Your task to perform on an android device: turn smart compose on in the gmail app Image 0: 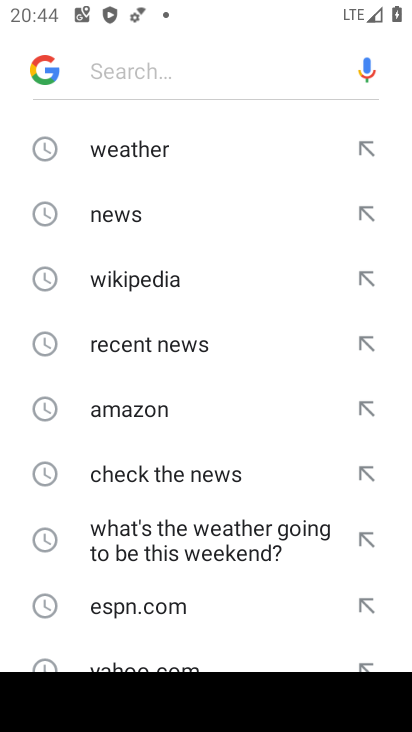
Step 0: press home button
Your task to perform on an android device: turn smart compose on in the gmail app Image 1: 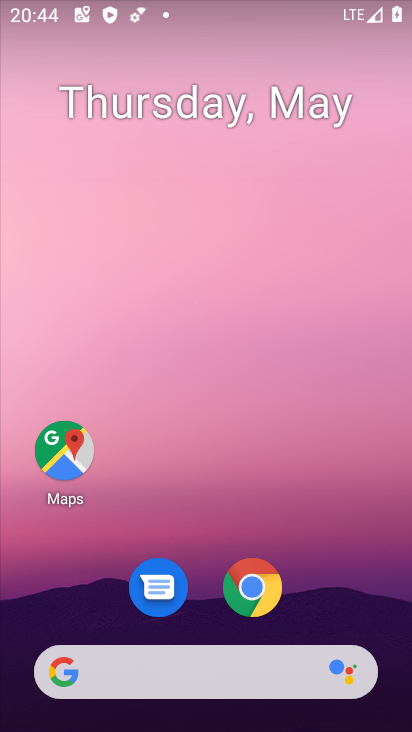
Step 1: drag from (105, 699) to (159, 57)
Your task to perform on an android device: turn smart compose on in the gmail app Image 2: 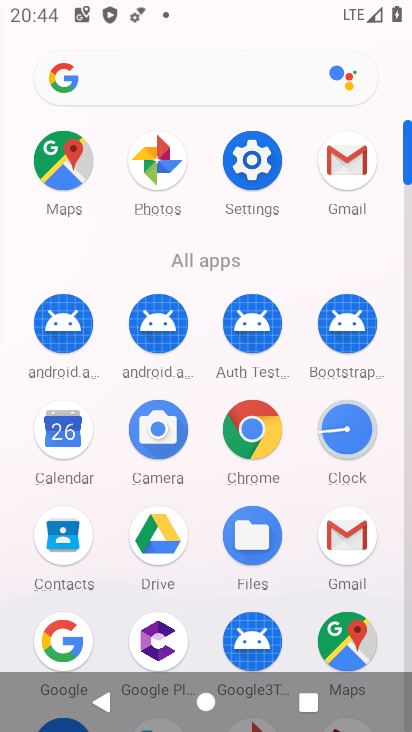
Step 2: click (364, 549)
Your task to perform on an android device: turn smart compose on in the gmail app Image 3: 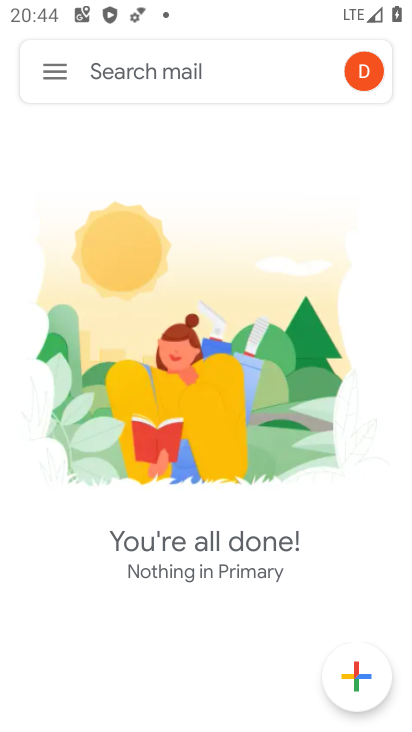
Step 3: click (64, 82)
Your task to perform on an android device: turn smart compose on in the gmail app Image 4: 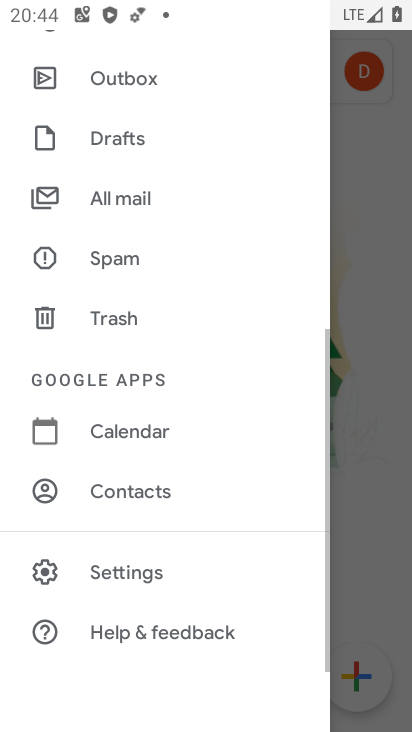
Step 4: click (113, 569)
Your task to perform on an android device: turn smart compose on in the gmail app Image 5: 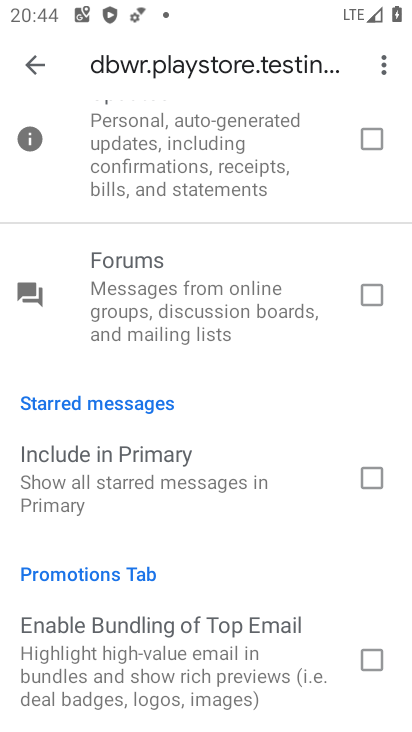
Step 5: task complete